Your task to perform on an android device: Go to Reddit.com Image 0: 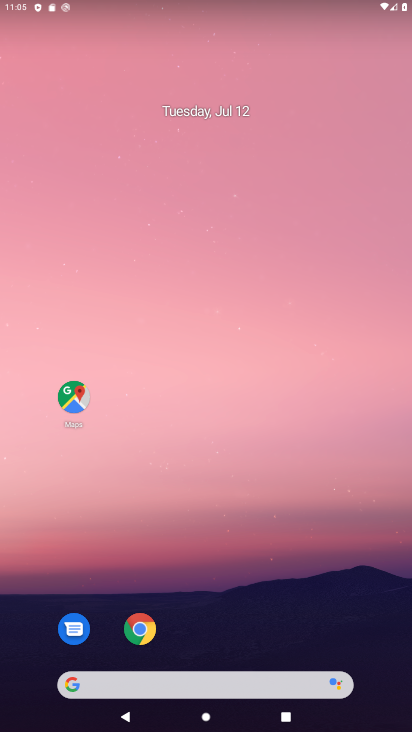
Step 0: drag from (291, 472) to (269, 8)
Your task to perform on an android device: Go to Reddit.com Image 1: 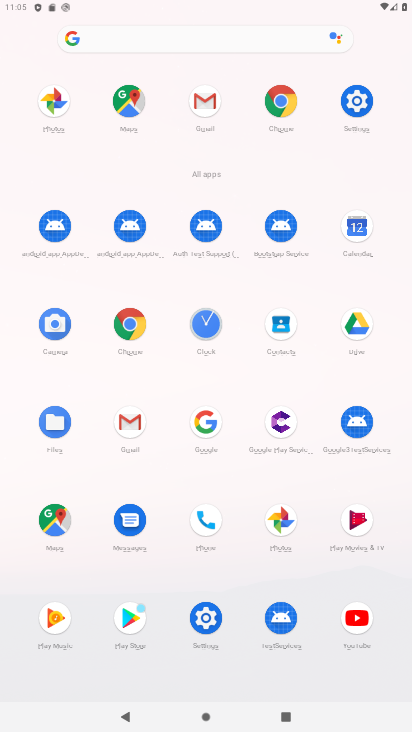
Step 1: click (280, 94)
Your task to perform on an android device: Go to Reddit.com Image 2: 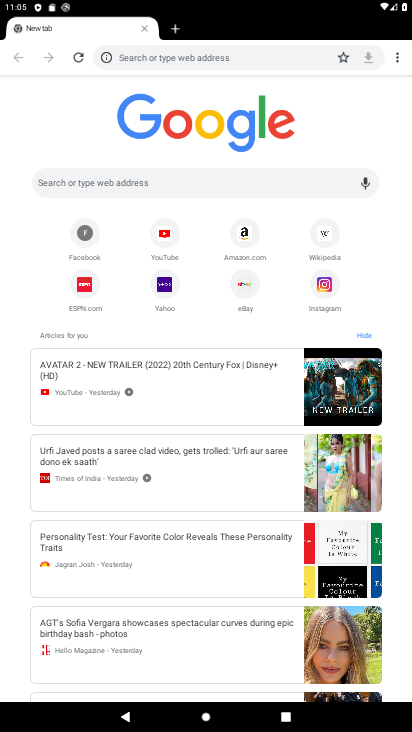
Step 2: click (173, 176)
Your task to perform on an android device: Go to Reddit.com Image 3: 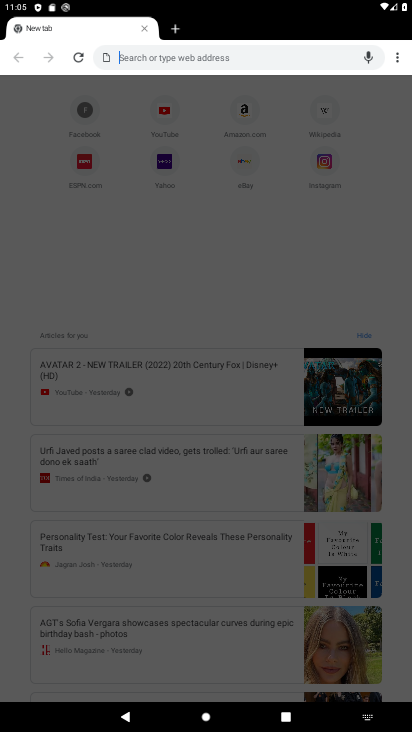
Step 3: type " Reddit.com"
Your task to perform on an android device: Go to Reddit.com Image 4: 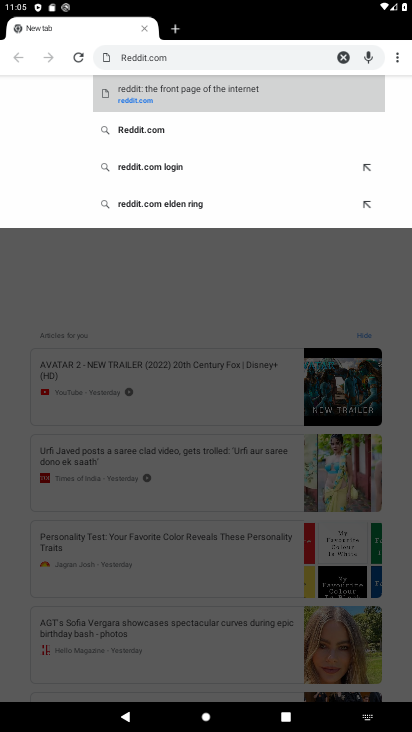
Step 4: click (177, 137)
Your task to perform on an android device: Go to Reddit.com Image 5: 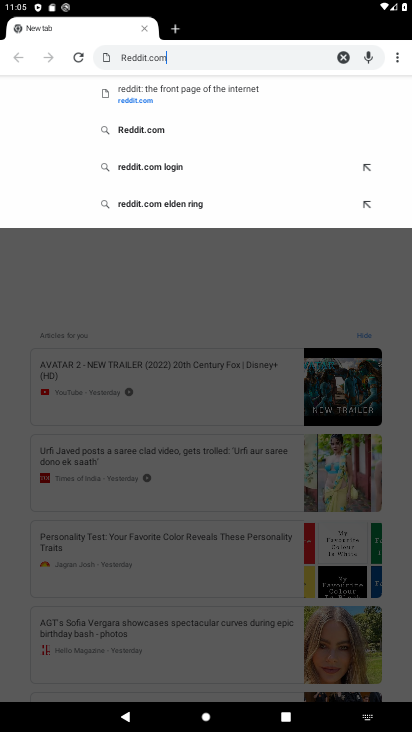
Step 5: click (143, 122)
Your task to perform on an android device: Go to Reddit.com Image 6: 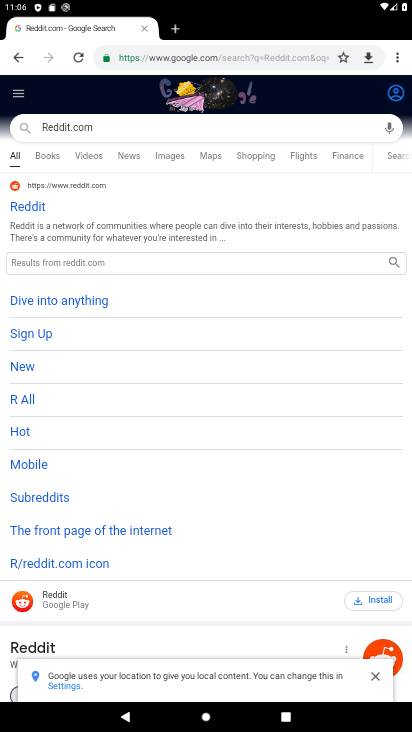
Step 6: task complete